Your task to perform on an android device: Find coffee shops on Maps Image 0: 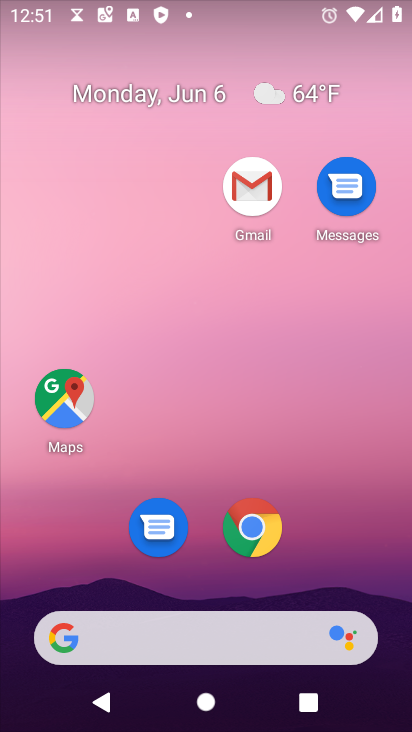
Step 0: click (53, 412)
Your task to perform on an android device: Find coffee shops on Maps Image 1: 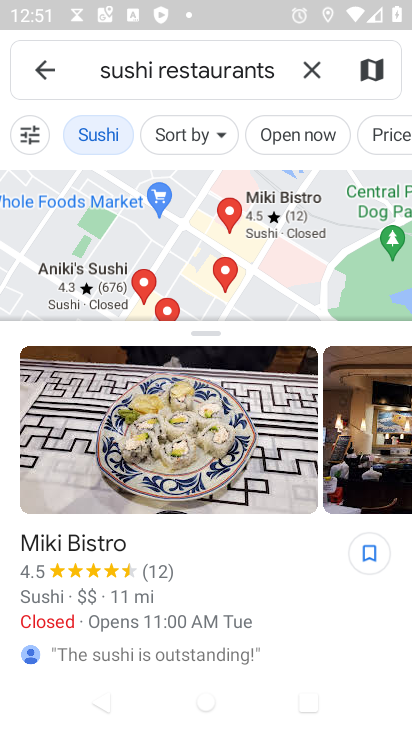
Step 1: click (308, 81)
Your task to perform on an android device: Find coffee shops on Maps Image 2: 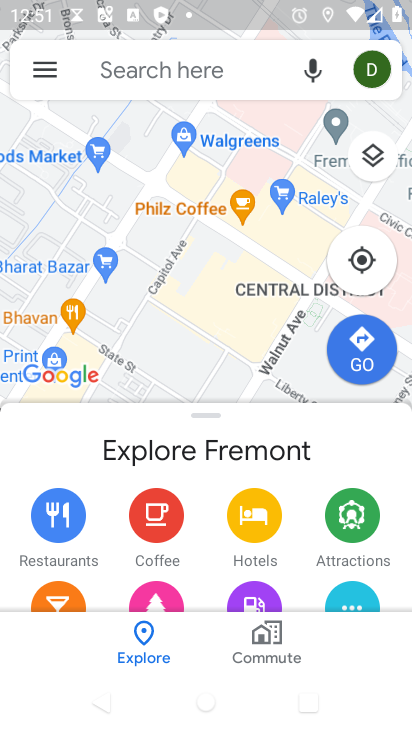
Step 2: click (216, 80)
Your task to perform on an android device: Find coffee shops on Maps Image 3: 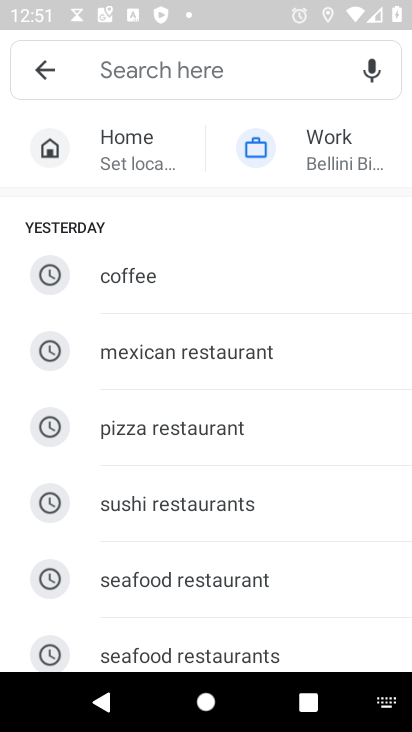
Step 3: click (133, 67)
Your task to perform on an android device: Find coffee shops on Maps Image 4: 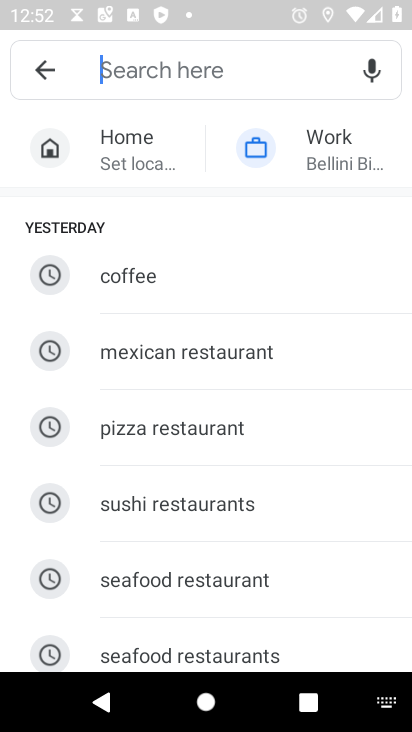
Step 4: type "coffee shop"
Your task to perform on an android device: Find coffee shops on Maps Image 5: 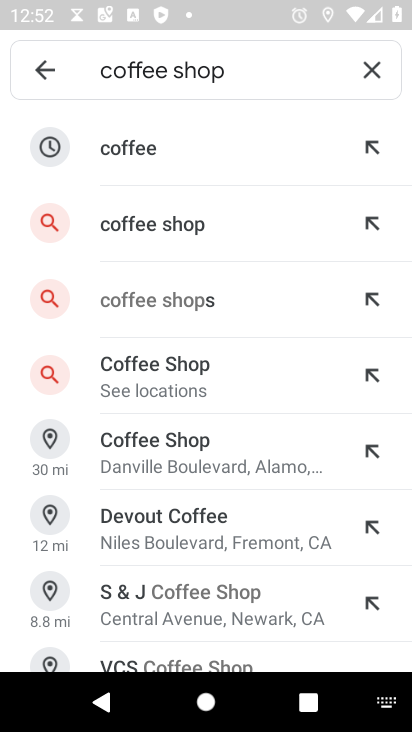
Step 5: click (194, 298)
Your task to perform on an android device: Find coffee shops on Maps Image 6: 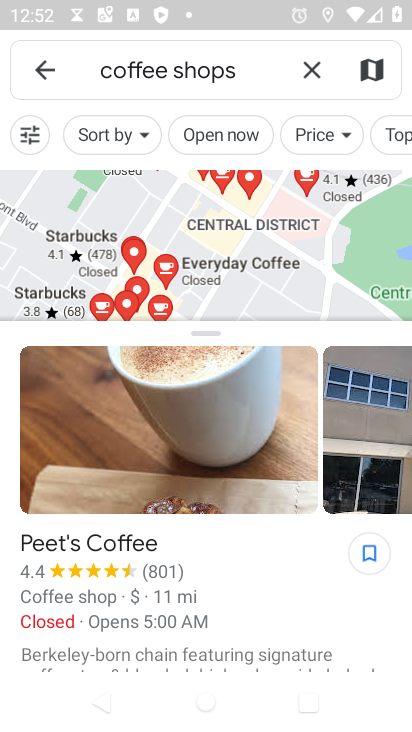
Step 6: task complete